Your task to perform on an android device: Do I have any events this weekend? Image 0: 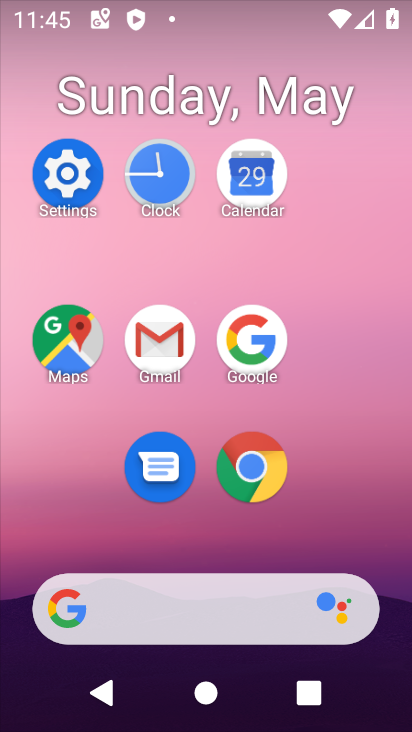
Step 0: click (241, 172)
Your task to perform on an android device: Do I have any events this weekend? Image 1: 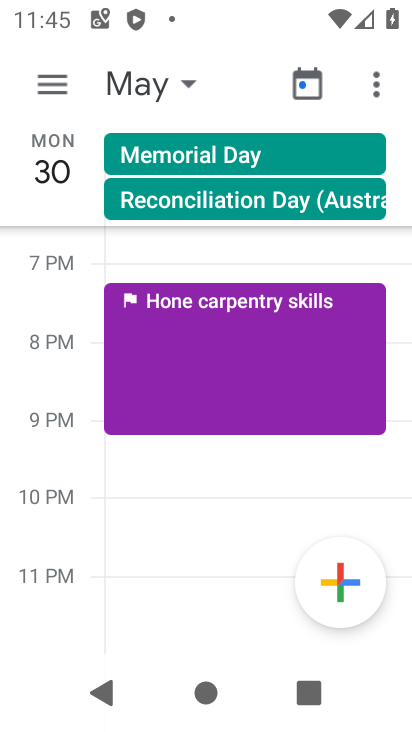
Step 1: click (51, 78)
Your task to perform on an android device: Do I have any events this weekend? Image 2: 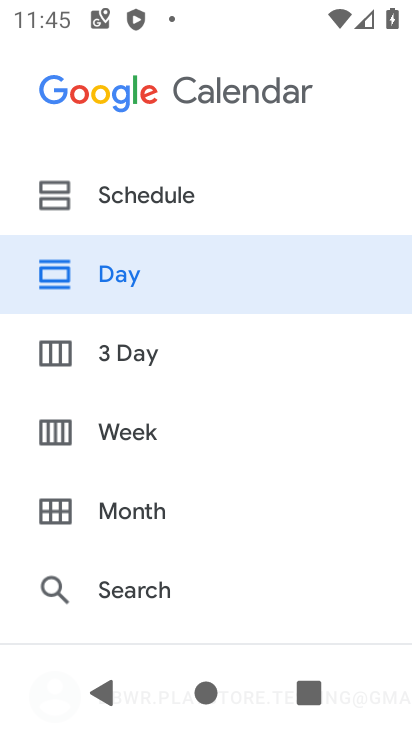
Step 2: click (135, 455)
Your task to perform on an android device: Do I have any events this weekend? Image 3: 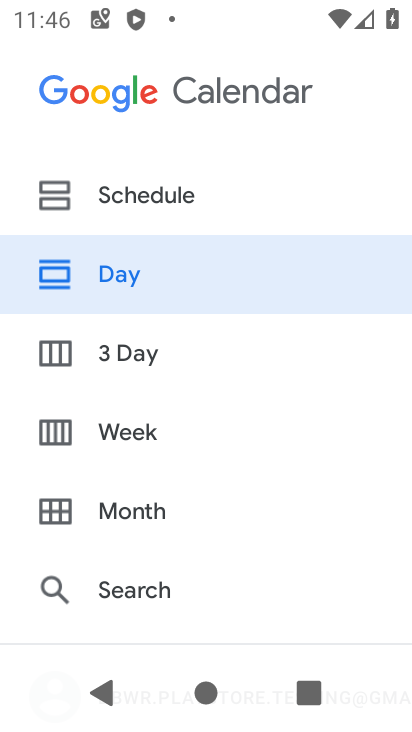
Step 3: click (136, 433)
Your task to perform on an android device: Do I have any events this weekend? Image 4: 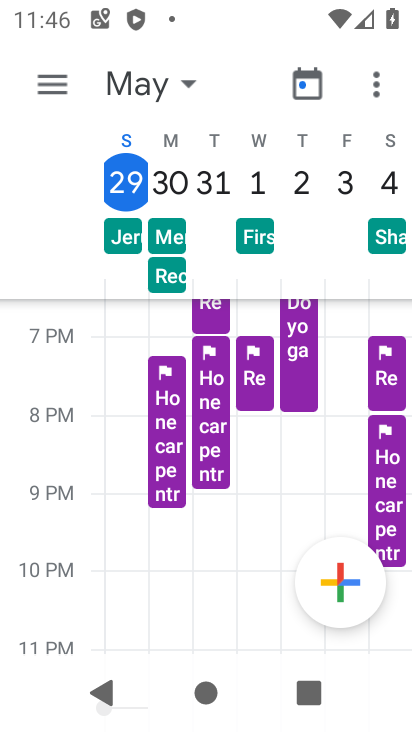
Step 4: task complete